Your task to perform on an android device: Open the stopwatch Image 0: 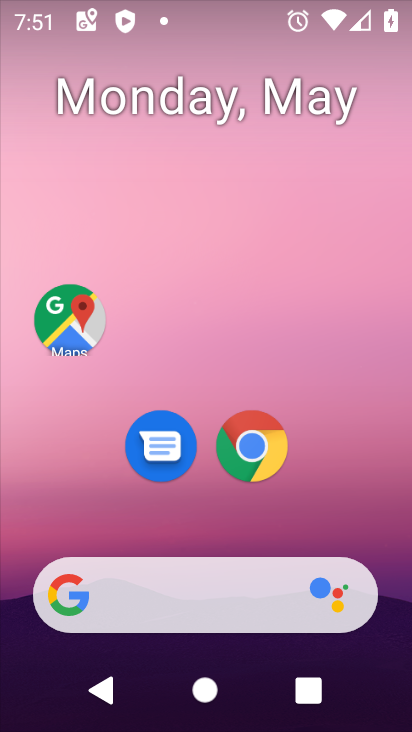
Step 0: drag from (333, 509) to (230, 43)
Your task to perform on an android device: Open the stopwatch Image 1: 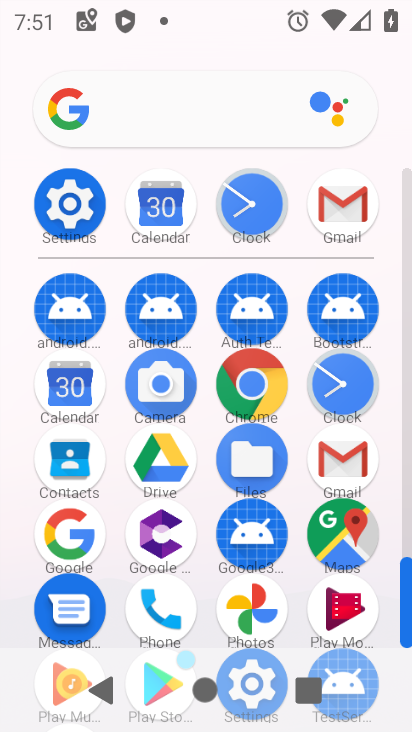
Step 1: click (253, 208)
Your task to perform on an android device: Open the stopwatch Image 2: 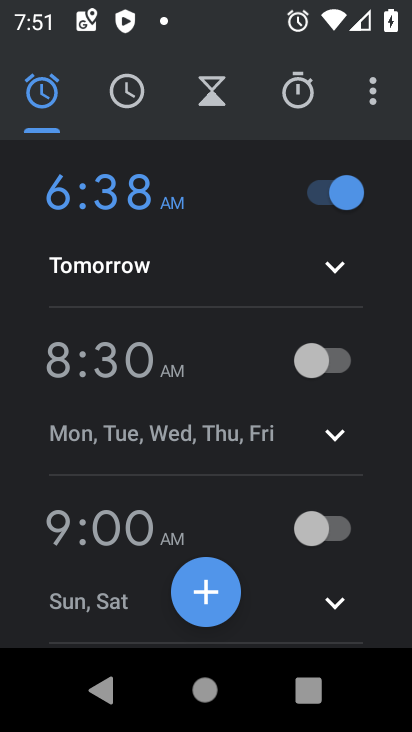
Step 2: click (306, 98)
Your task to perform on an android device: Open the stopwatch Image 3: 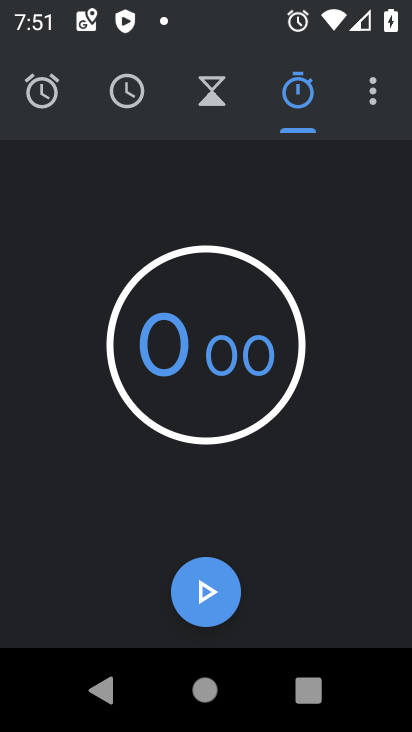
Step 3: task complete